Your task to perform on an android device: Go to ESPN.com Image 0: 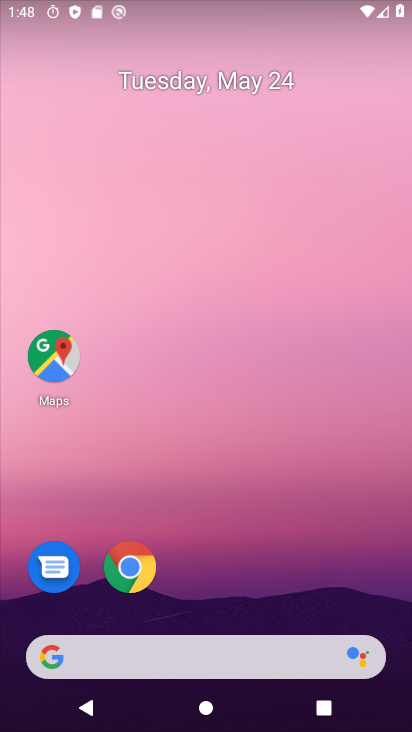
Step 0: click (136, 573)
Your task to perform on an android device: Go to ESPN.com Image 1: 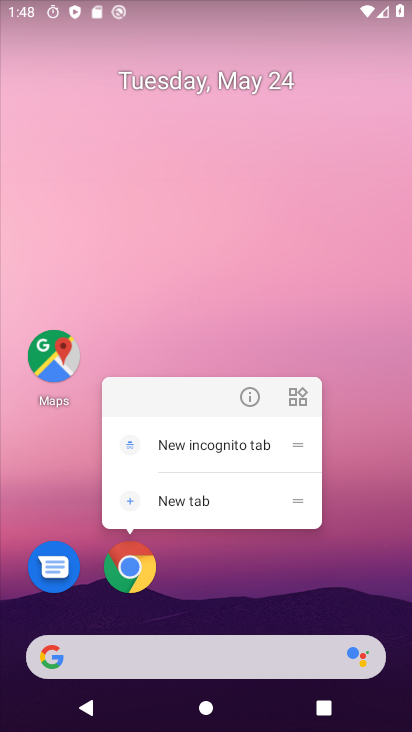
Step 1: click (122, 561)
Your task to perform on an android device: Go to ESPN.com Image 2: 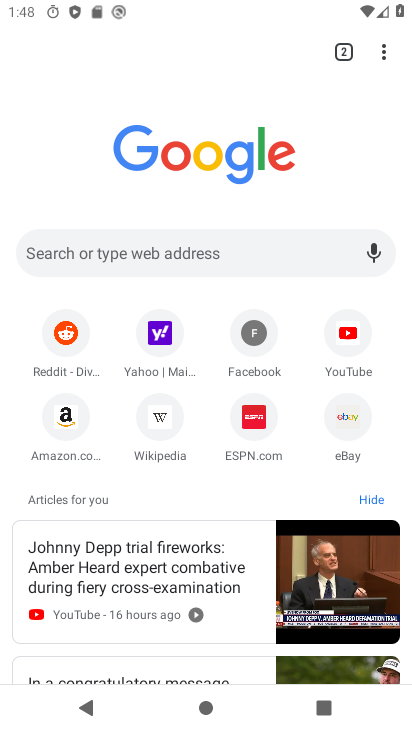
Step 2: click (250, 445)
Your task to perform on an android device: Go to ESPN.com Image 3: 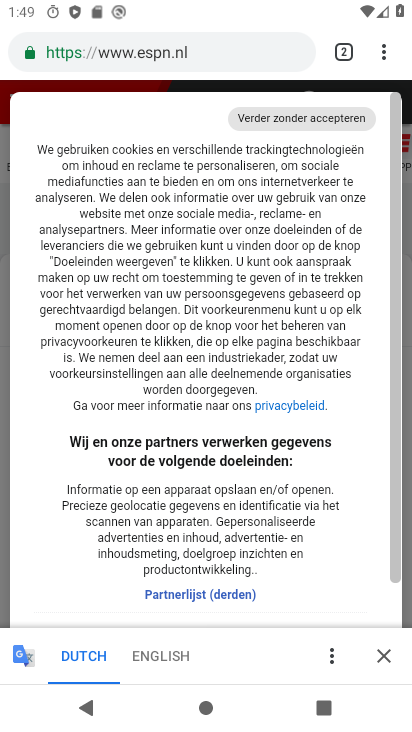
Step 3: task complete